Your task to perform on an android device: Go to internet settings Image 0: 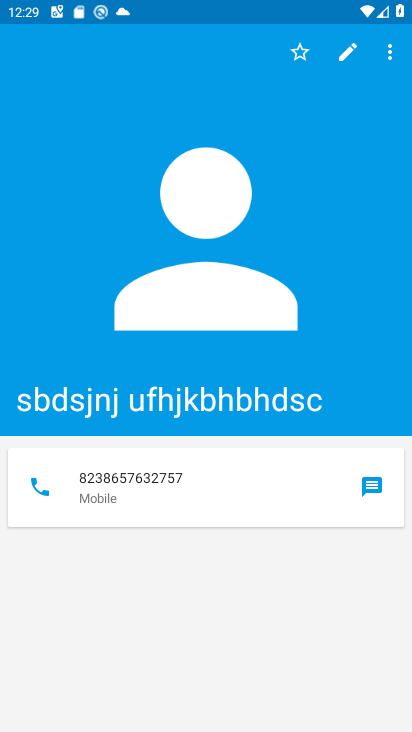
Step 0: press home button
Your task to perform on an android device: Go to internet settings Image 1: 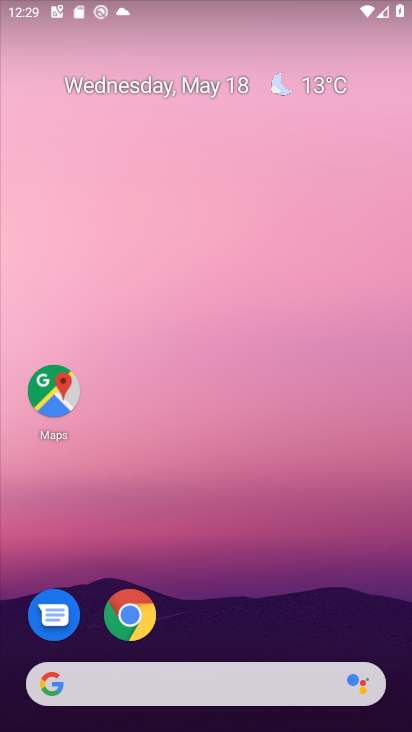
Step 1: drag from (402, 670) to (401, 282)
Your task to perform on an android device: Go to internet settings Image 2: 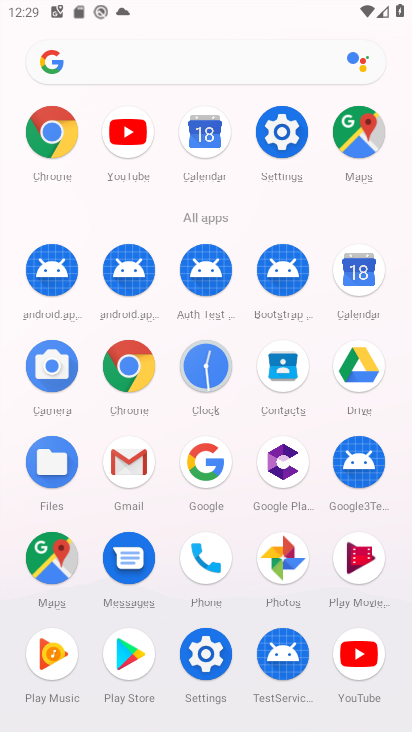
Step 2: click (292, 132)
Your task to perform on an android device: Go to internet settings Image 3: 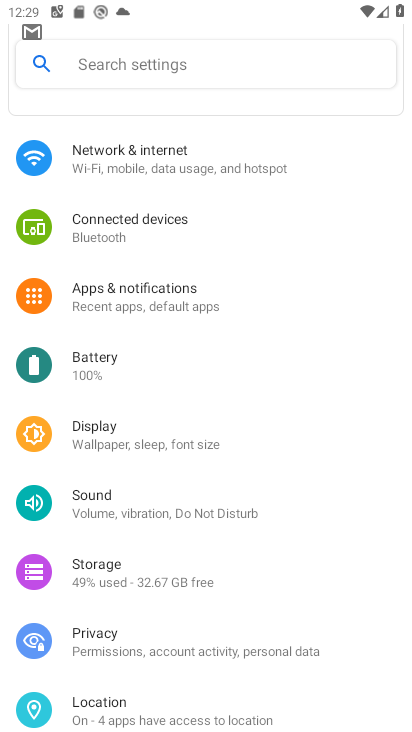
Step 3: click (146, 154)
Your task to perform on an android device: Go to internet settings Image 4: 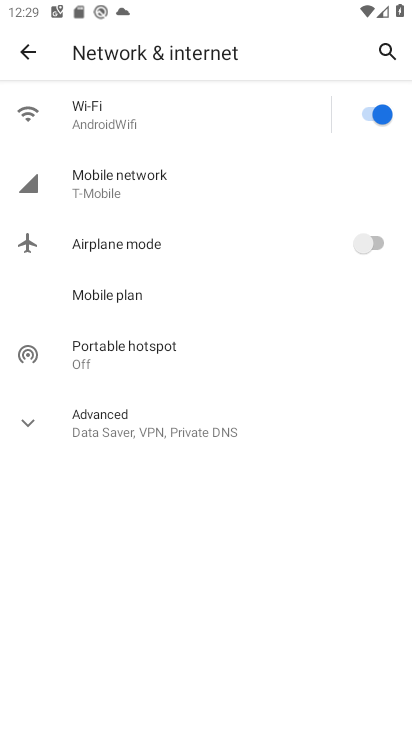
Step 4: click (100, 111)
Your task to perform on an android device: Go to internet settings Image 5: 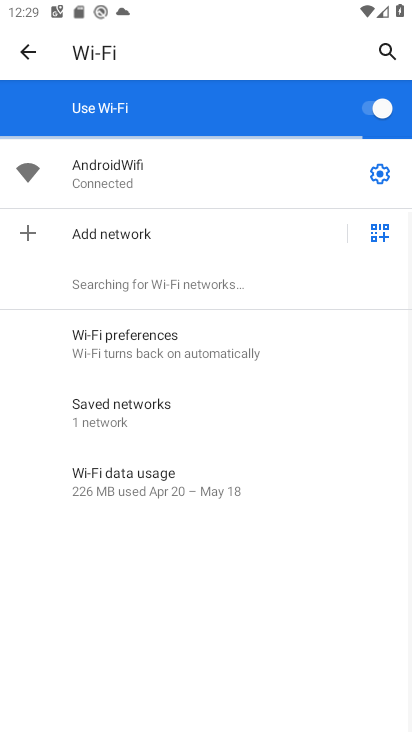
Step 5: click (382, 174)
Your task to perform on an android device: Go to internet settings Image 6: 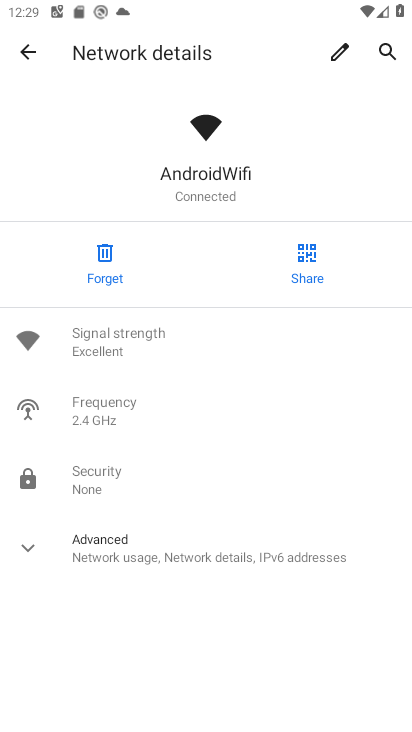
Step 6: task complete